Your task to perform on an android device: Go to sound settings Image 0: 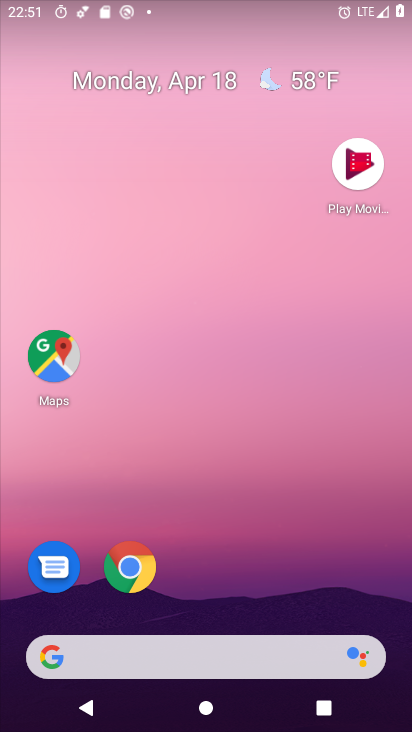
Step 0: click (238, 163)
Your task to perform on an android device: Go to sound settings Image 1: 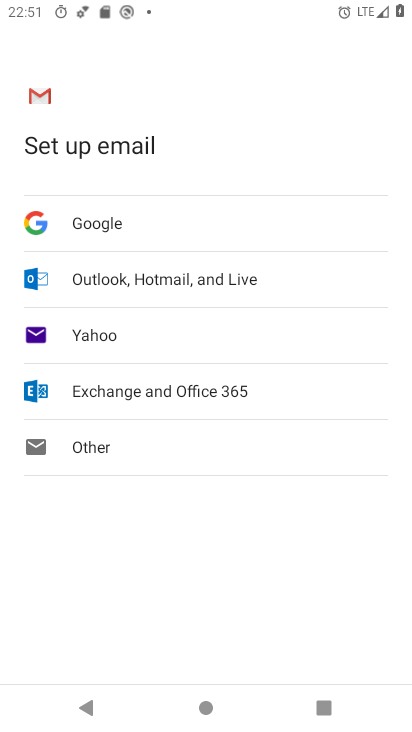
Step 1: drag from (248, 558) to (351, 275)
Your task to perform on an android device: Go to sound settings Image 2: 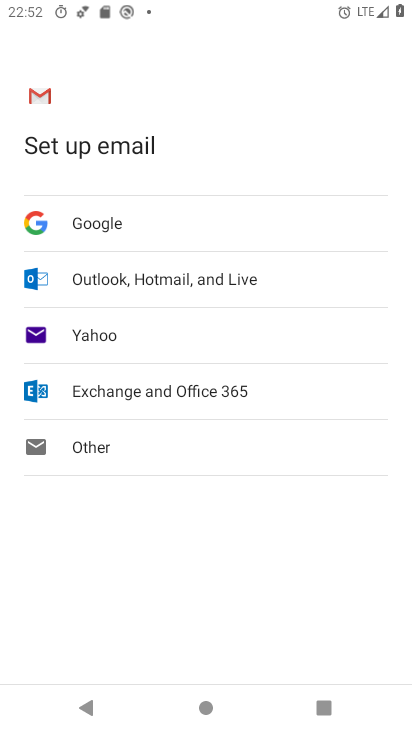
Step 2: press home button
Your task to perform on an android device: Go to sound settings Image 3: 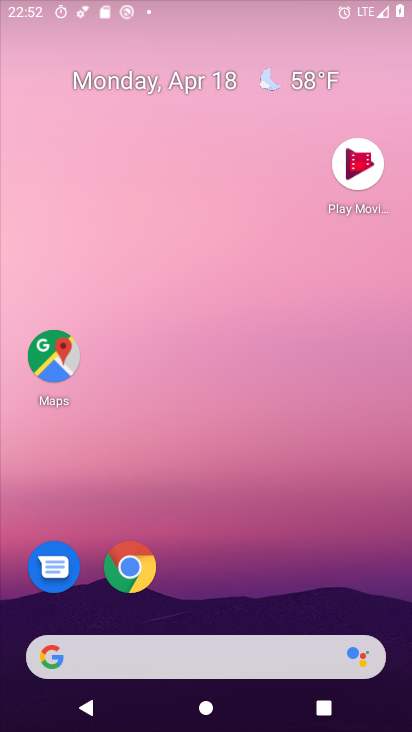
Step 3: drag from (159, 520) to (254, 181)
Your task to perform on an android device: Go to sound settings Image 4: 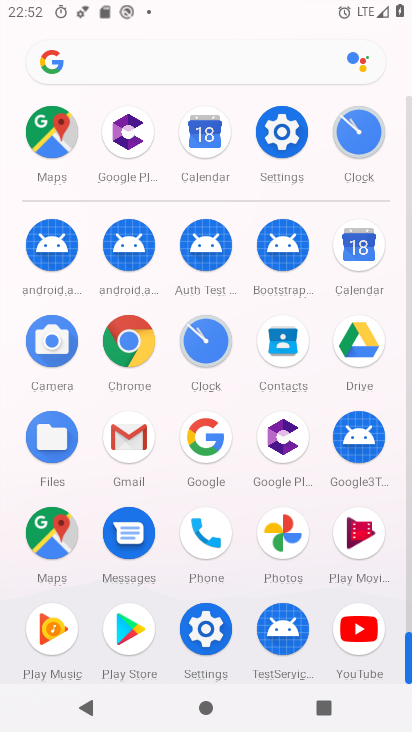
Step 4: click (274, 146)
Your task to perform on an android device: Go to sound settings Image 5: 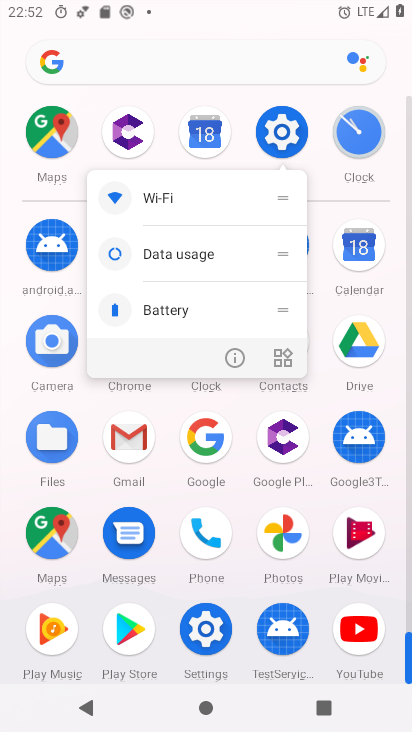
Step 5: click (244, 371)
Your task to perform on an android device: Go to sound settings Image 6: 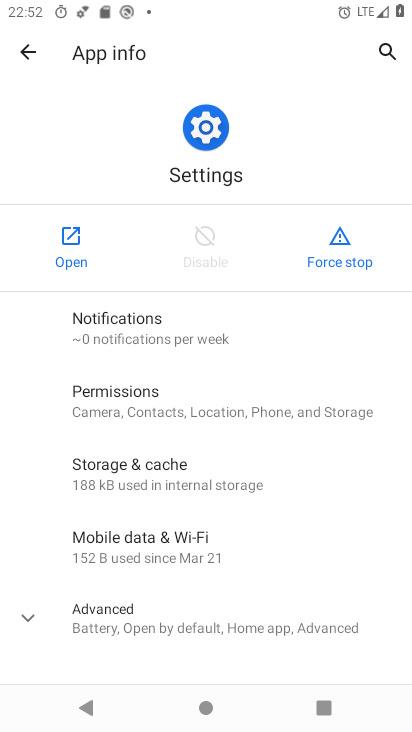
Step 6: click (86, 253)
Your task to perform on an android device: Go to sound settings Image 7: 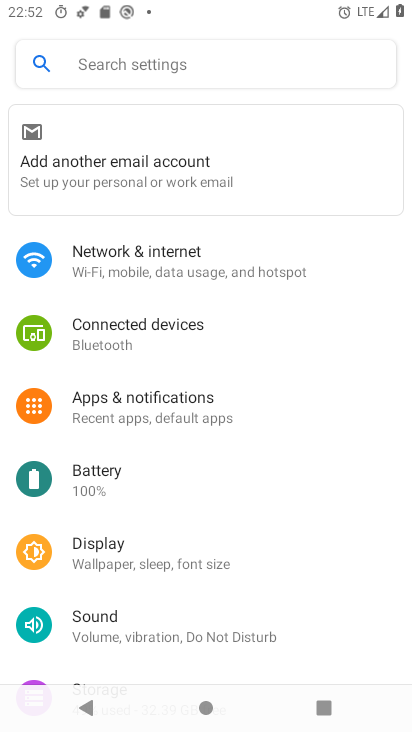
Step 7: drag from (224, 521) to (250, 208)
Your task to perform on an android device: Go to sound settings Image 8: 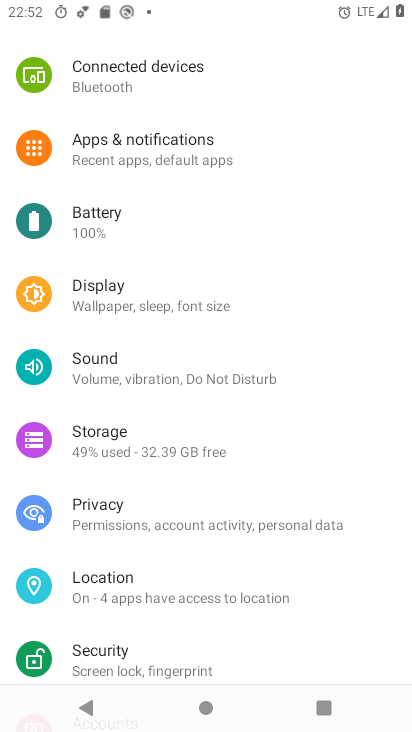
Step 8: click (127, 373)
Your task to perform on an android device: Go to sound settings Image 9: 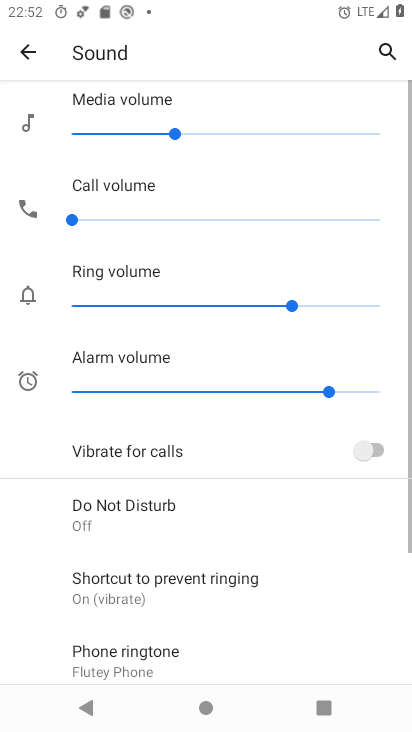
Step 9: task complete